Your task to perform on an android device: turn on priority inbox in the gmail app Image 0: 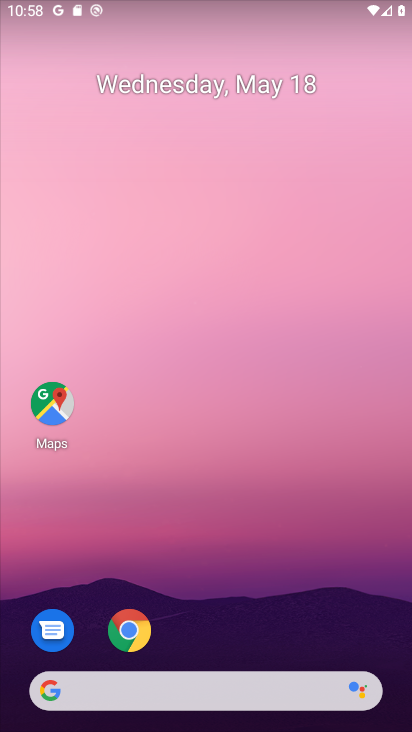
Step 0: drag from (296, 645) to (397, 101)
Your task to perform on an android device: turn on priority inbox in the gmail app Image 1: 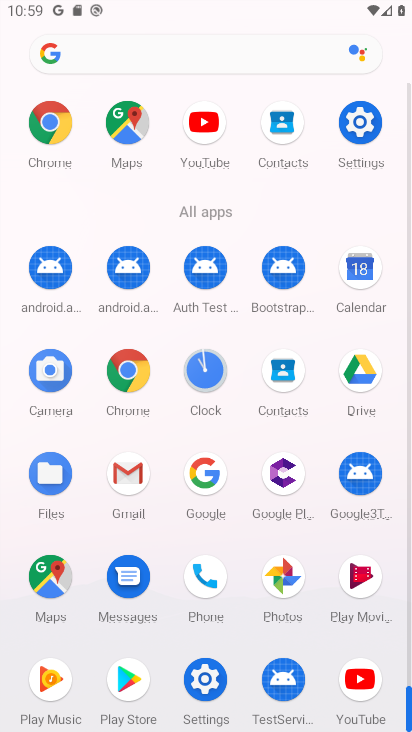
Step 1: click (142, 476)
Your task to perform on an android device: turn on priority inbox in the gmail app Image 2: 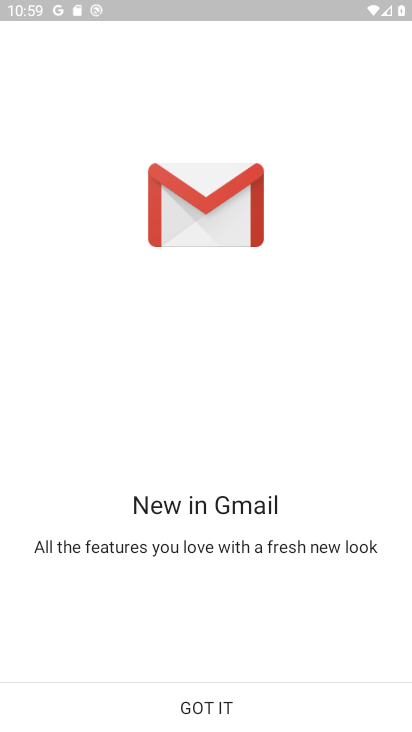
Step 2: click (201, 701)
Your task to perform on an android device: turn on priority inbox in the gmail app Image 3: 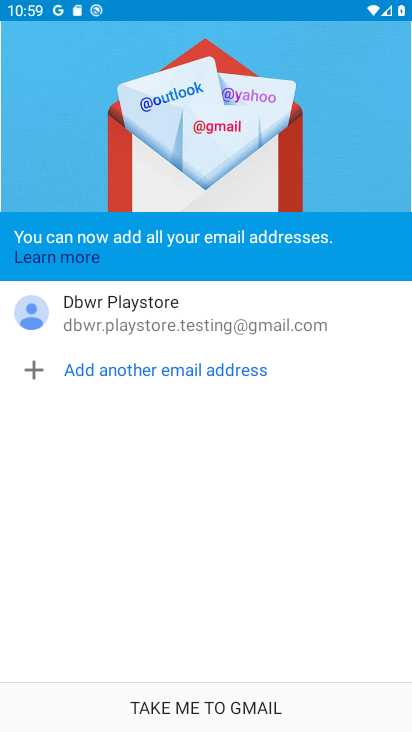
Step 3: click (137, 313)
Your task to perform on an android device: turn on priority inbox in the gmail app Image 4: 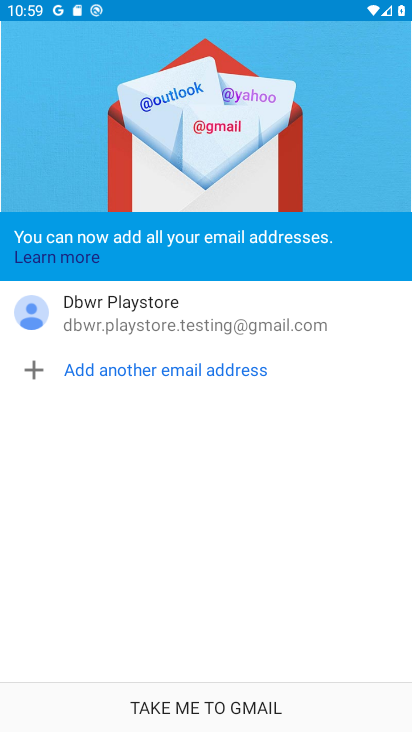
Step 4: click (162, 707)
Your task to perform on an android device: turn on priority inbox in the gmail app Image 5: 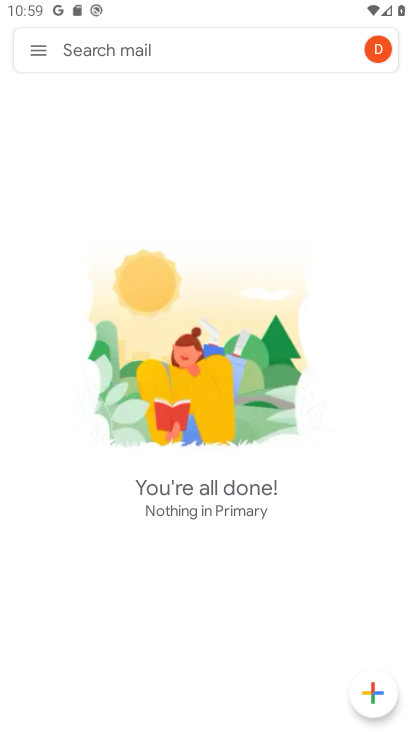
Step 5: click (41, 52)
Your task to perform on an android device: turn on priority inbox in the gmail app Image 6: 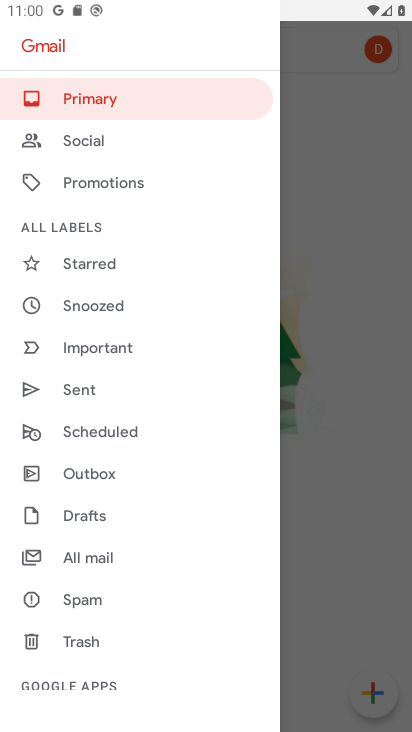
Step 6: drag from (198, 645) to (199, 351)
Your task to perform on an android device: turn on priority inbox in the gmail app Image 7: 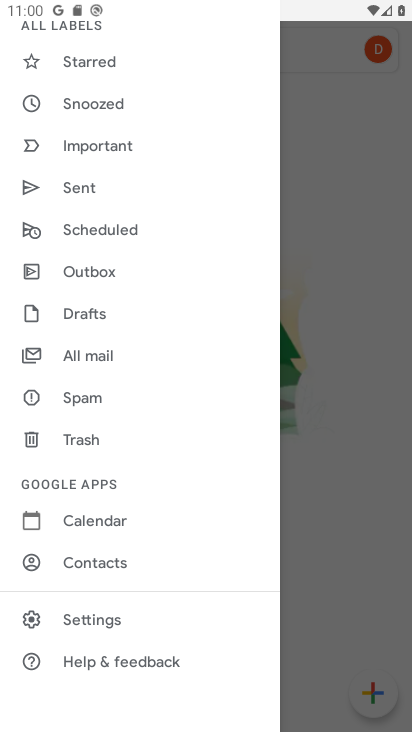
Step 7: click (144, 608)
Your task to perform on an android device: turn on priority inbox in the gmail app Image 8: 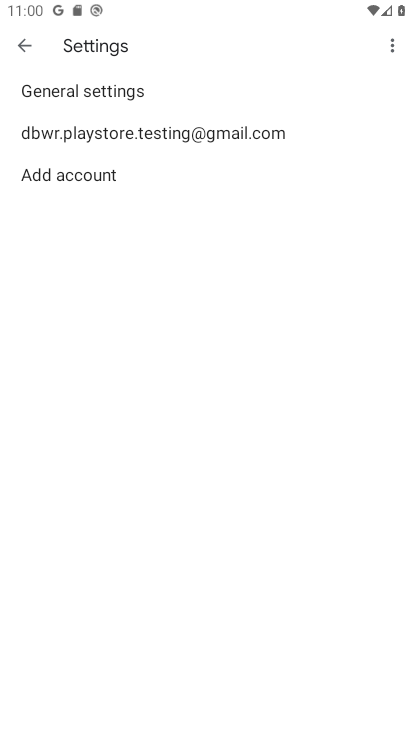
Step 8: click (170, 125)
Your task to perform on an android device: turn on priority inbox in the gmail app Image 9: 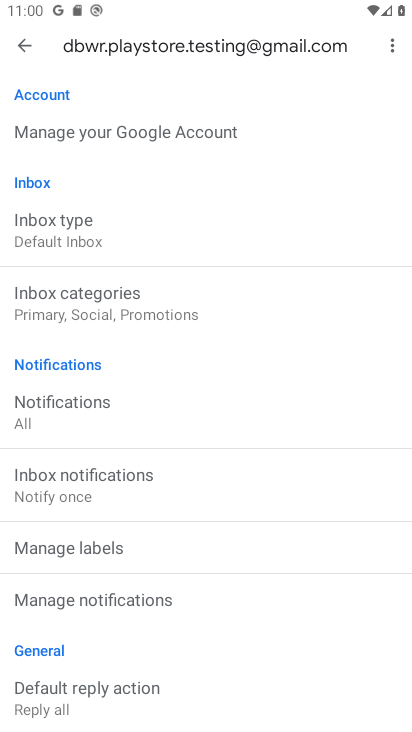
Step 9: click (131, 229)
Your task to perform on an android device: turn on priority inbox in the gmail app Image 10: 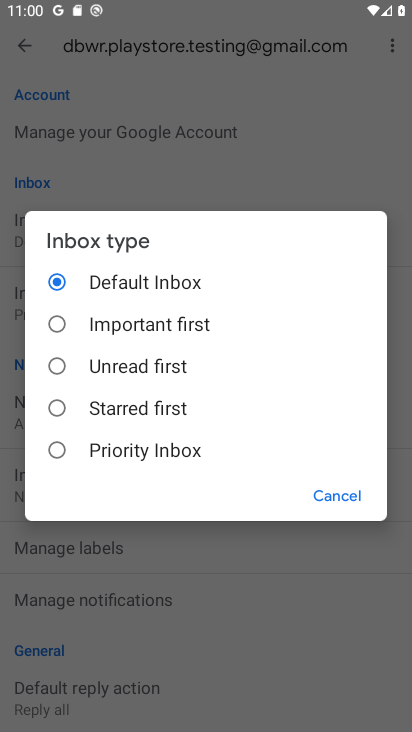
Step 10: click (118, 443)
Your task to perform on an android device: turn on priority inbox in the gmail app Image 11: 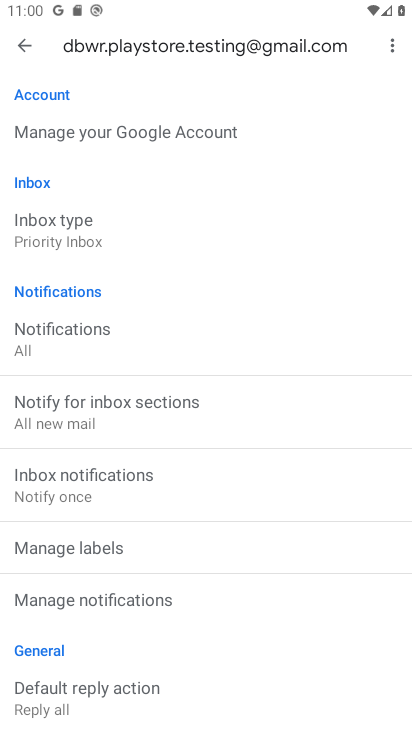
Step 11: task complete